Your task to perform on an android device: open wifi settings Image 0: 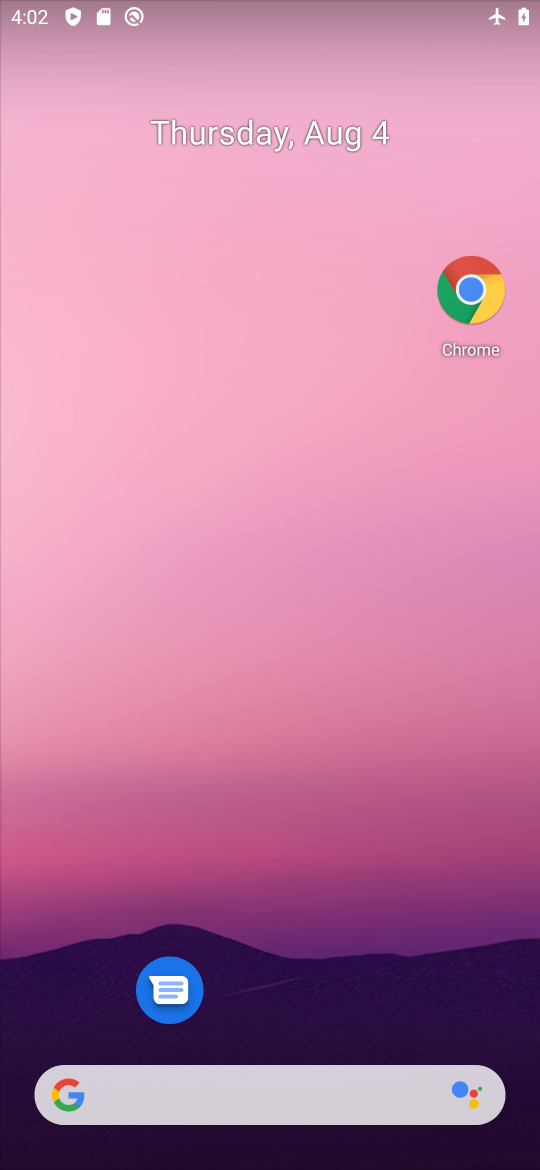
Step 0: drag from (301, 467) to (298, 301)
Your task to perform on an android device: open wifi settings Image 1: 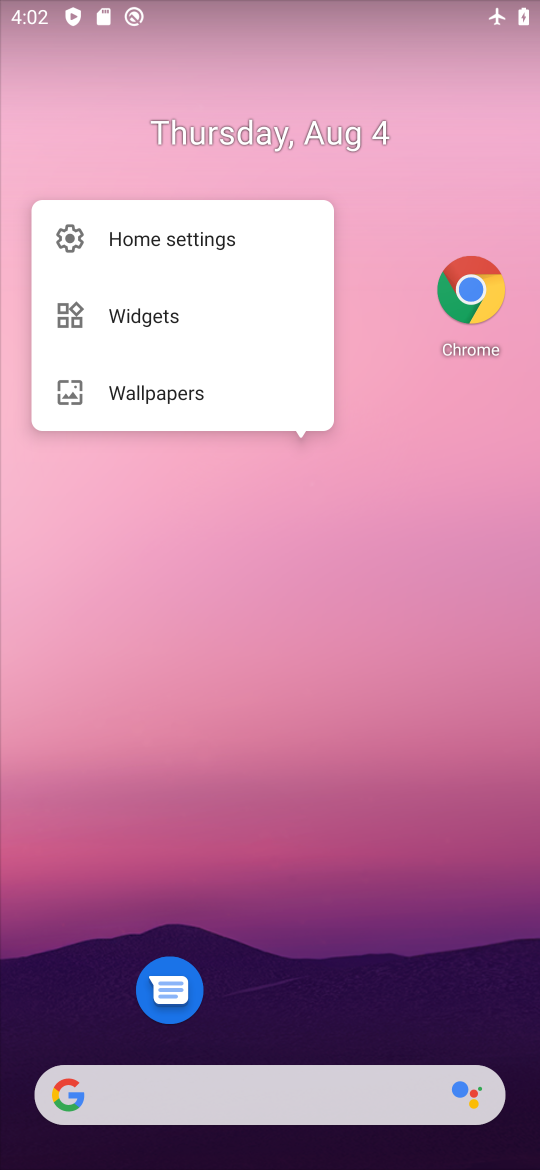
Step 1: click (369, 753)
Your task to perform on an android device: open wifi settings Image 2: 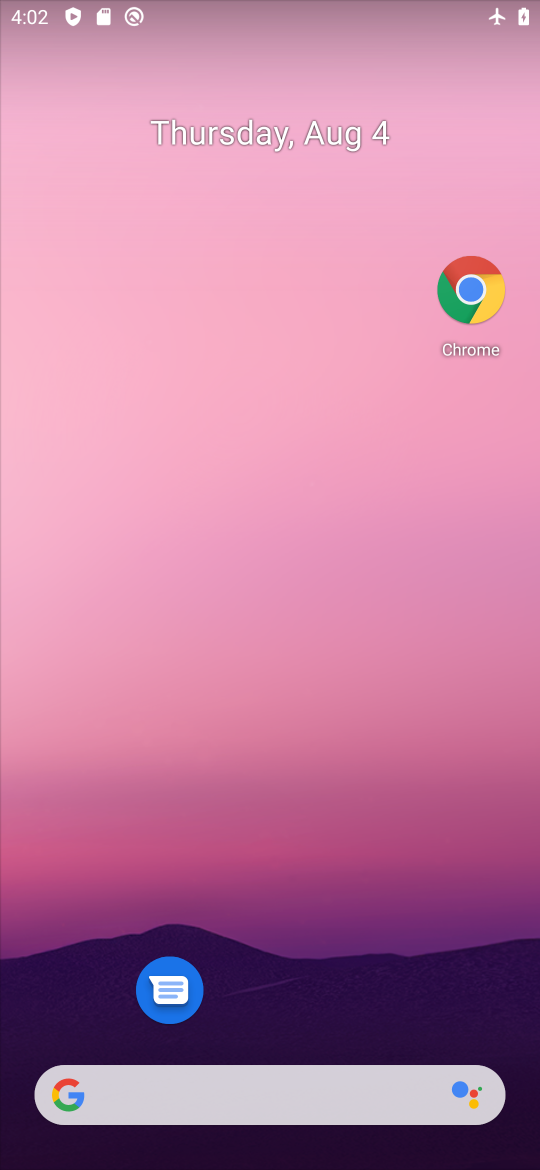
Step 2: drag from (315, 1008) to (362, 203)
Your task to perform on an android device: open wifi settings Image 3: 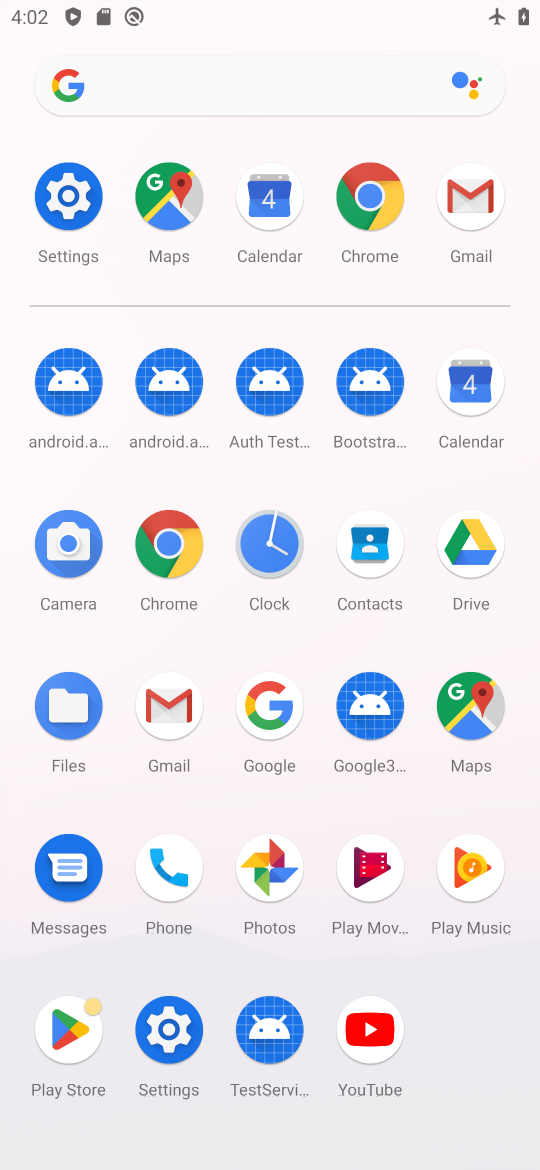
Step 3: click (53, 198)
Your task to perform on an android device: open wifi settings Image 4: 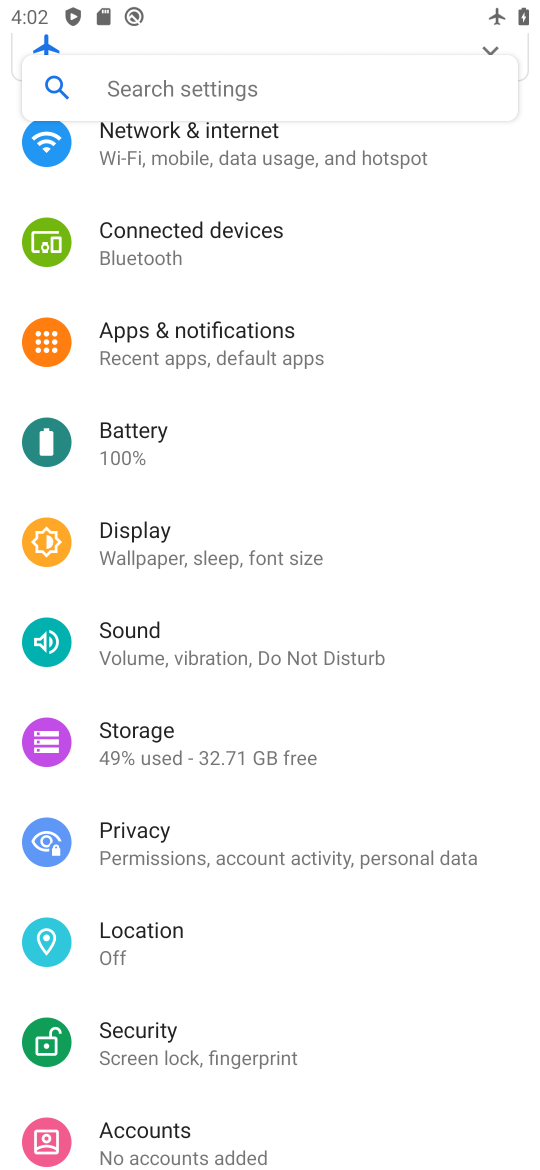
Step 4: click (159, 122)
Your task to perform on an android device: open wifi settings Image 5: 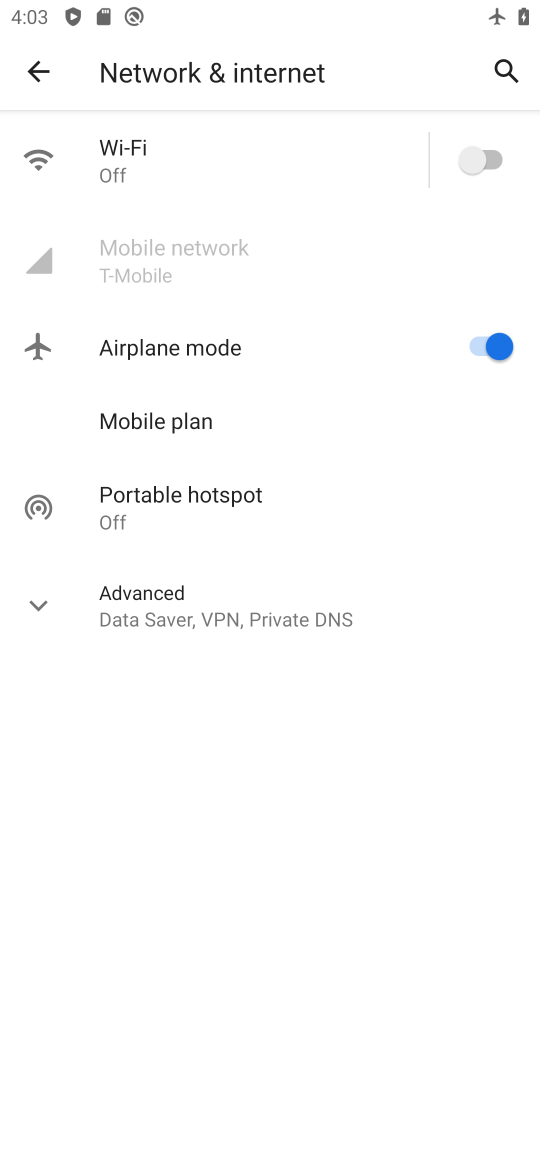
Step 5: click (223, 198)
Your task to perform on an android device: open wifi settings Image 6: 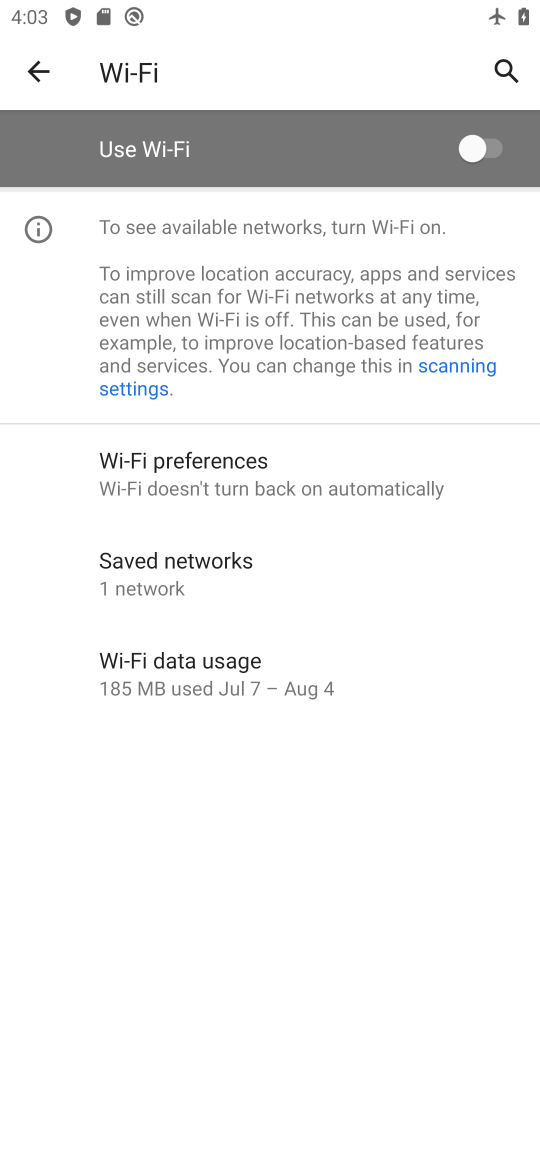
Step 6: task complete